Your task to perform on an android device: all mails in gmail Image 0: 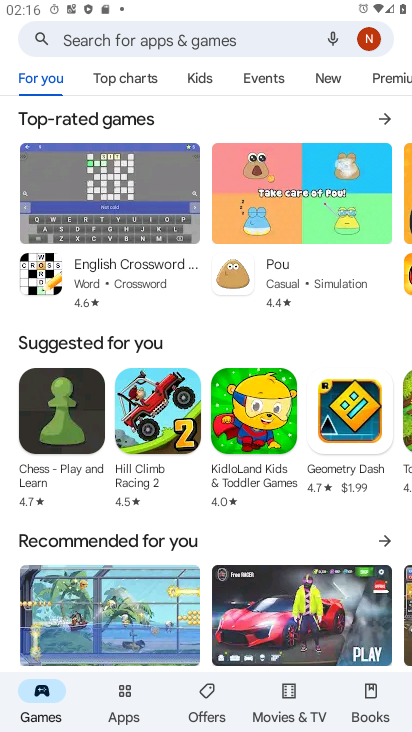
Step 0: press home button
Your task to perform on an android device: all mails in gmail Image 1: 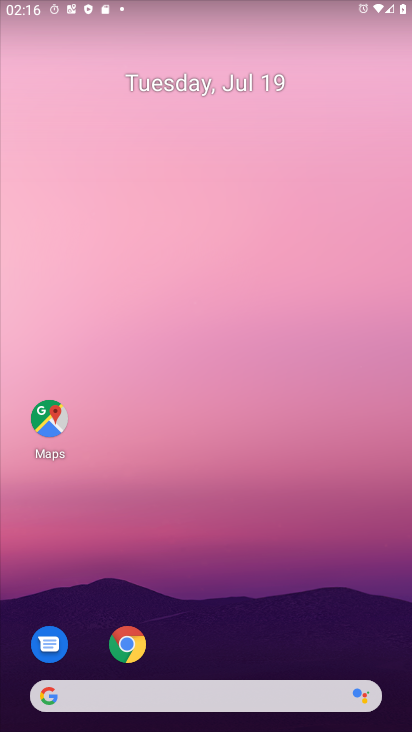
Step 1: drag from (192, 726) to (191, 262)
Your task to perform on an android device: all mails in gmail Image 2: 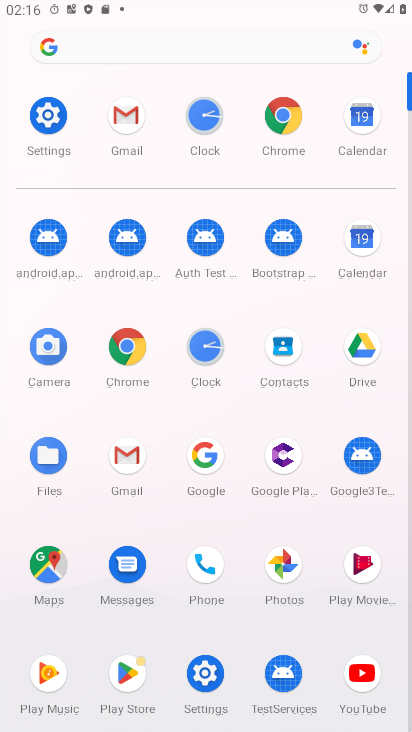
Step 2: click (129, 455)
Your task to perform on an android device: all mails in gmail Image 3: 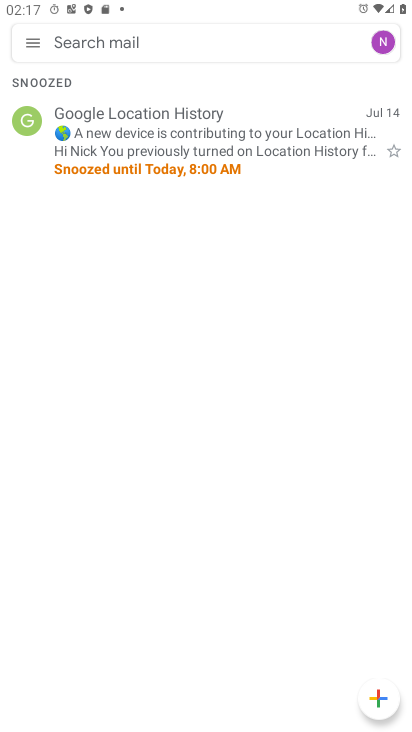
Step 3: click (31, 36)
Your task to perform on an android device: all mails in gmail Image 4: 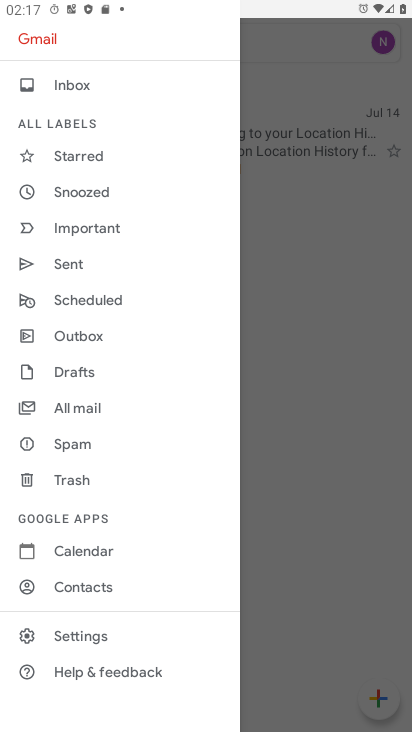
Step 4: click (82, 403)
Your task to perform on an android device: all mails in gmail Image 5: 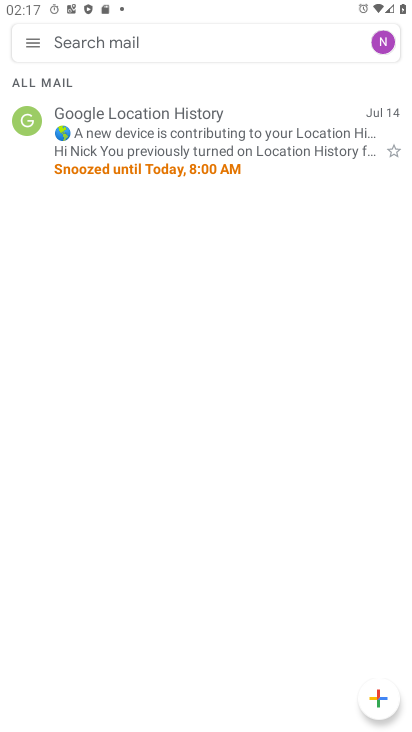
Step 5: task complete